Your task to perform on an android device: Go to display settings Image 0: 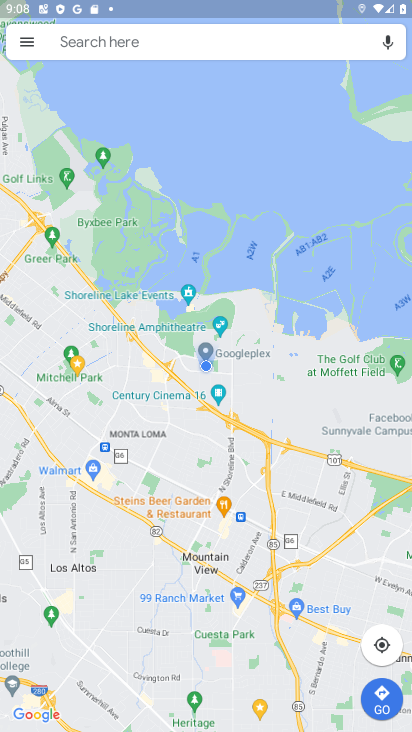
Step 0: press home button
Your task to perform on an android device: Go to display settings Image 1: 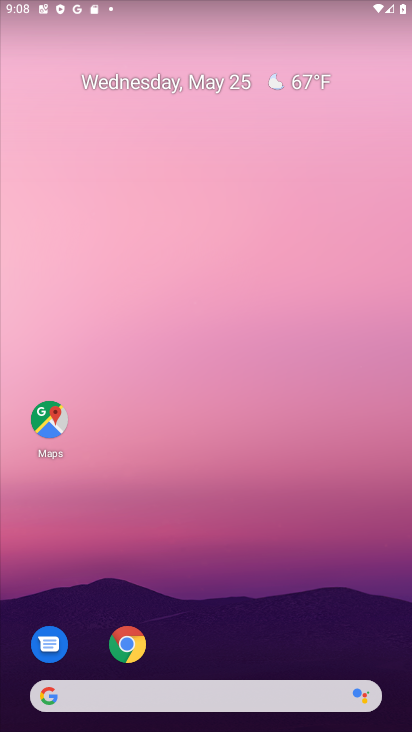
Step 1: drag from (195, 652) to (212, 64)
Your task to perform on an android device: Go to display settings Image 2: 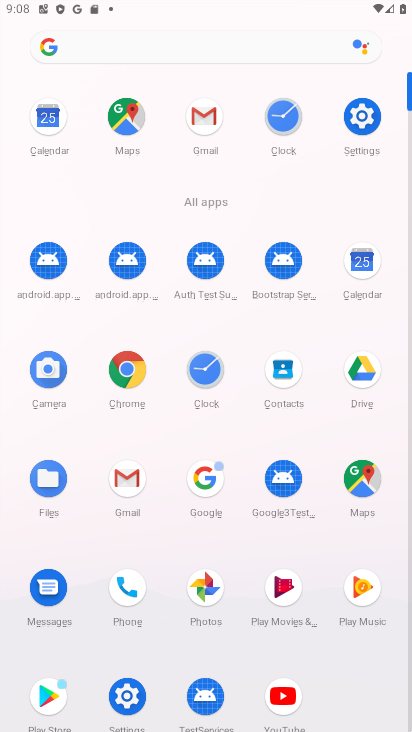
Step 2: click (361, 111)
Your task to perform on an android device: Go to display settings Image 3: 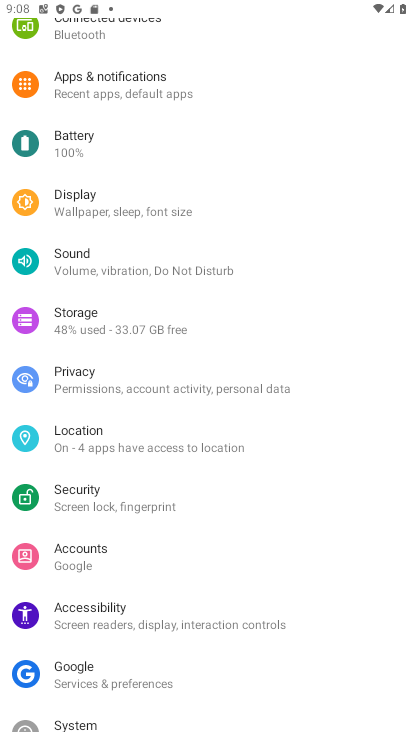
Step 3: click (121, 195)
Your task to perform on an android device: Go to display settings Image 4: 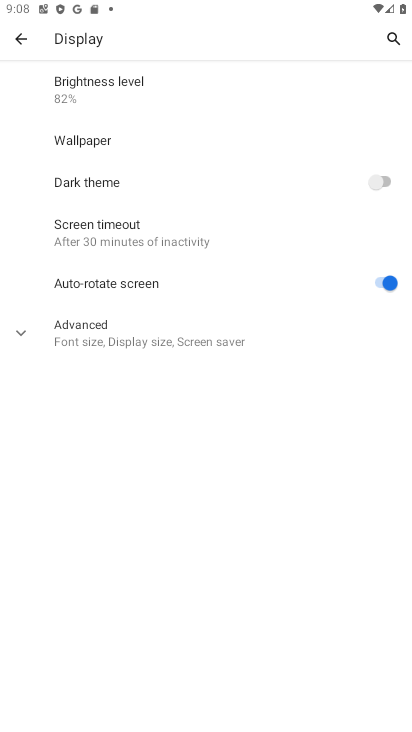
Step 4: click (24, 329)
Your task to perform on an android device: Go to display settings Image 5: 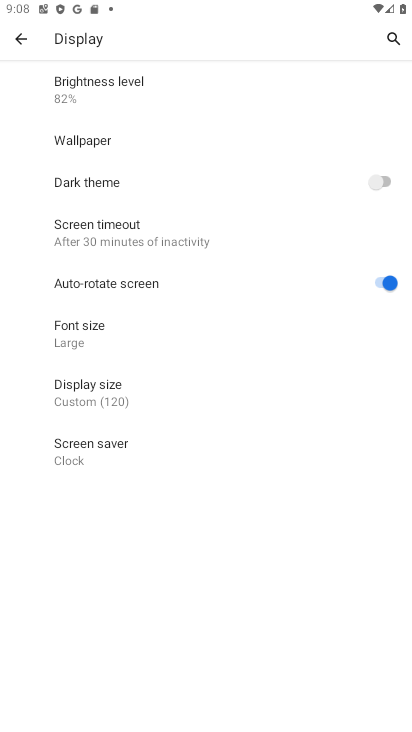
Step 5: task complete